Your task to perform on an android device: Open settings Image 0: 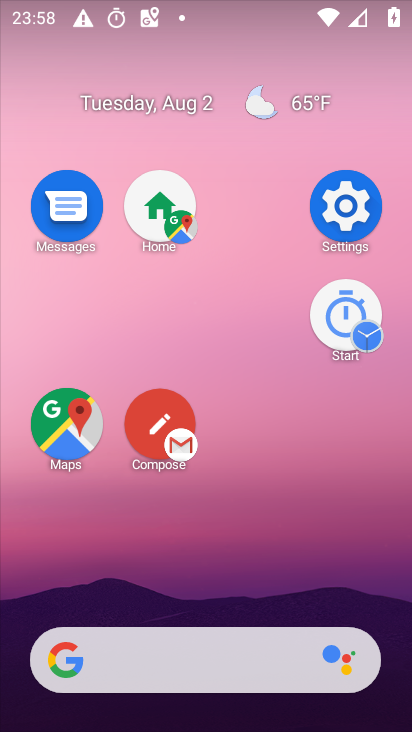
Step 0: drag from (224, 672) to (222, 67)
Your task to perform on an android device: Open settings Image 1: 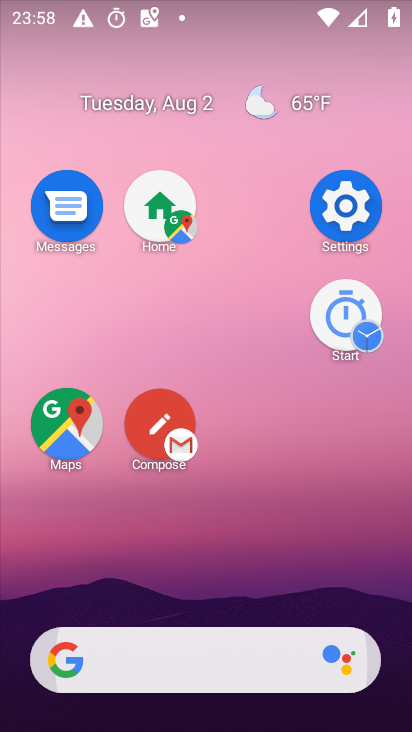
Step 1: drag from (277, 525) to (261, 160)
Your task to perform on an android device: Open settings Image 2: 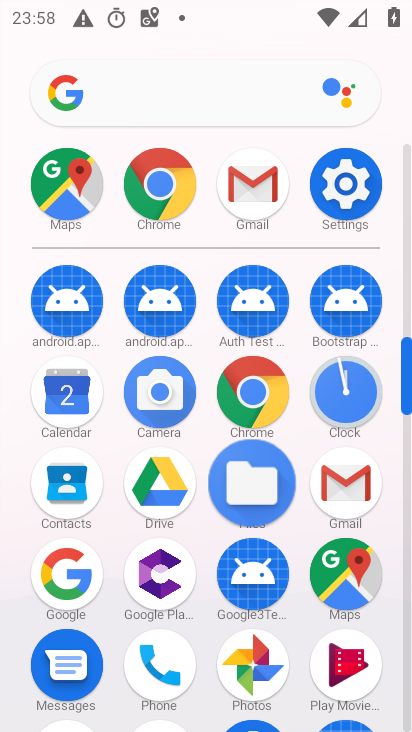
Step 2: drag from (232, 566) to (261, 151)
Your task to perform on an android device: Open settings Image 3: 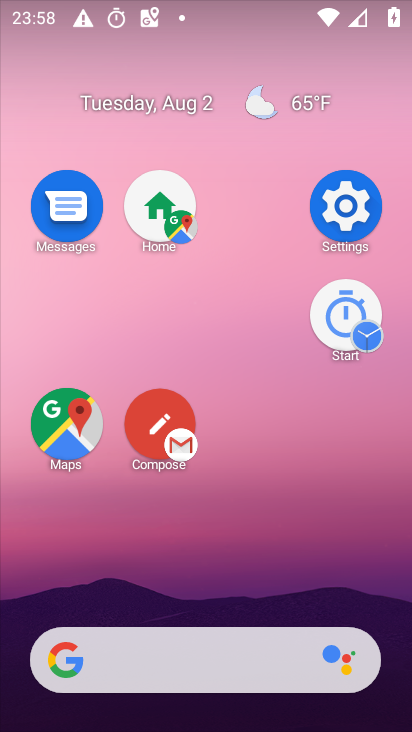
Step 3: click (360, 214)
Your task to perform on an android device: Open settings Image 4: 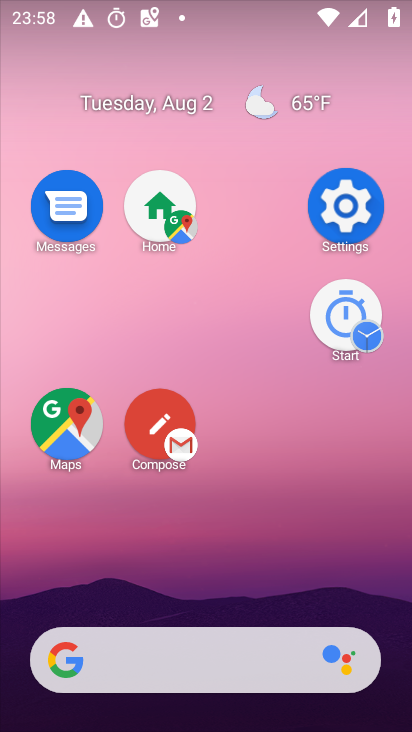
Step 4: click (360, 214)
Your task to perform on an android device: Open settings Image 5: 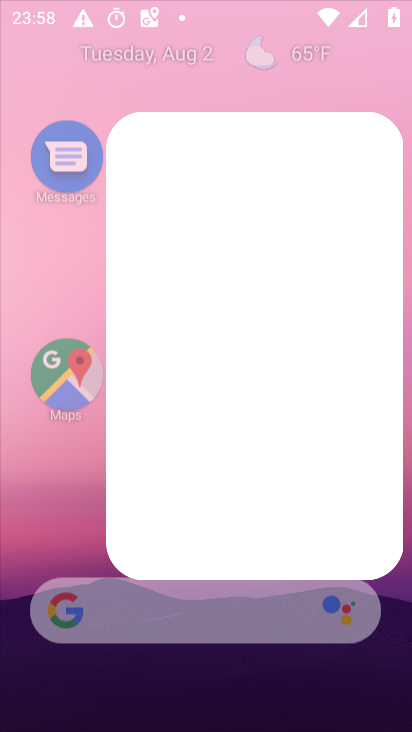
Step 5: click (360, 216)
Your task to perform on an android device: Open settings Image 6: 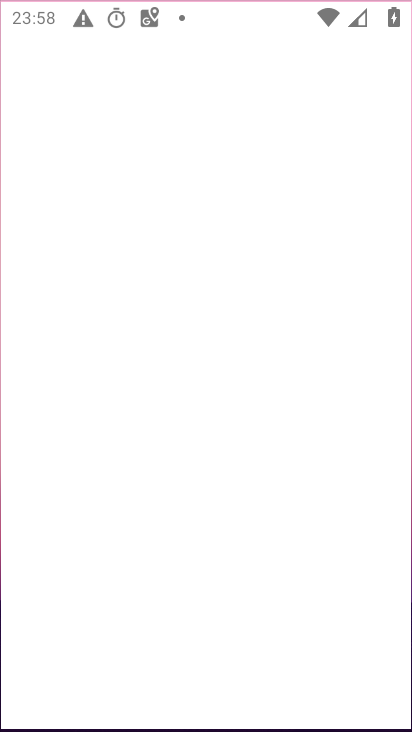
Step 6: click (360, 216)
Your task to perform on an android device: Open settings Image 7: 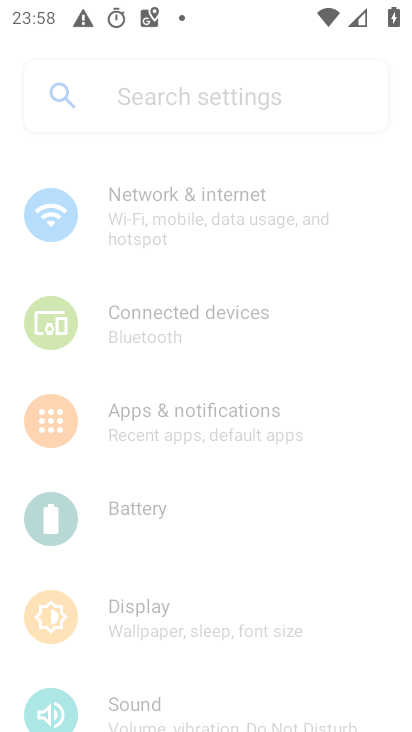
Step 7: click (360, 216)
Your task to perform on an android device: Open settings Image 8: 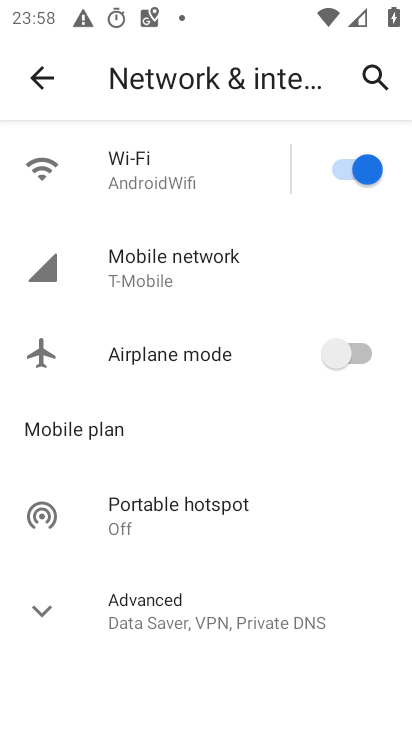
Step 8: task complete